Your task to perform on an android device: Search for the most popular coffee table on Crate & Barrel Image 0: 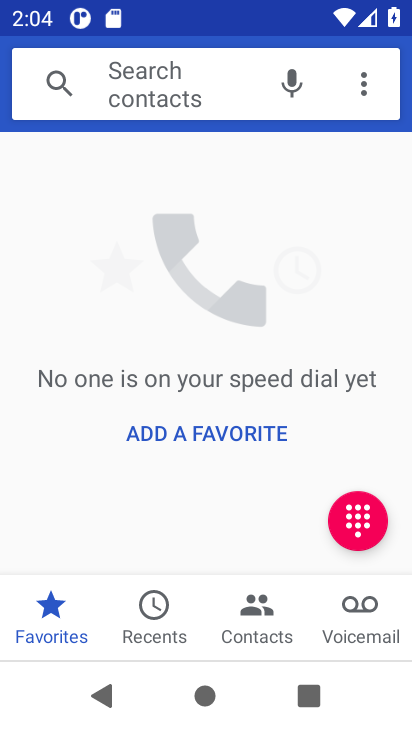
Step 0: press home button
Your task to perform on an android device: Search for the most popular coffee table on Crate & Barrel Image 1: 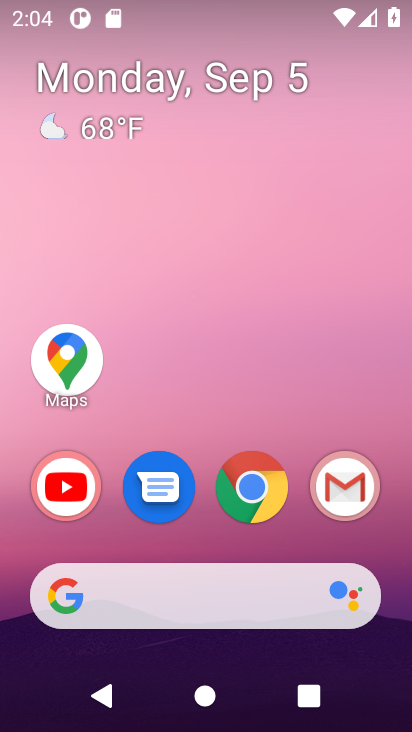
Step 1: click (248, 490)
Your task to perform on an android device: Search for the most popular coffee table on Crate & Barrel Image 2: 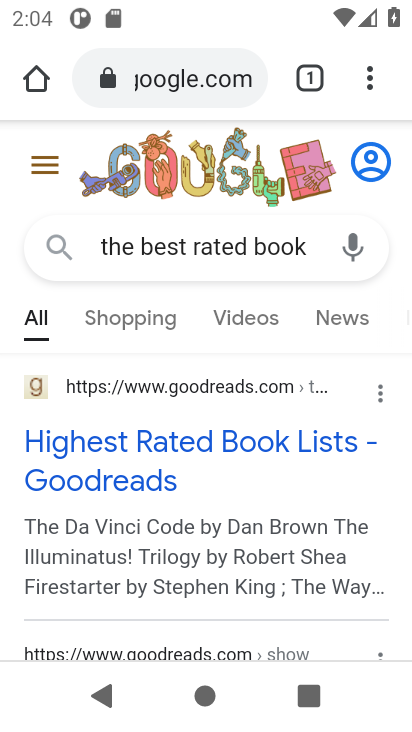
Step 2: click (168, 67)
Your task to perform on an android device: Search for the most popular coffee table on Crate & Barrel Image 3: 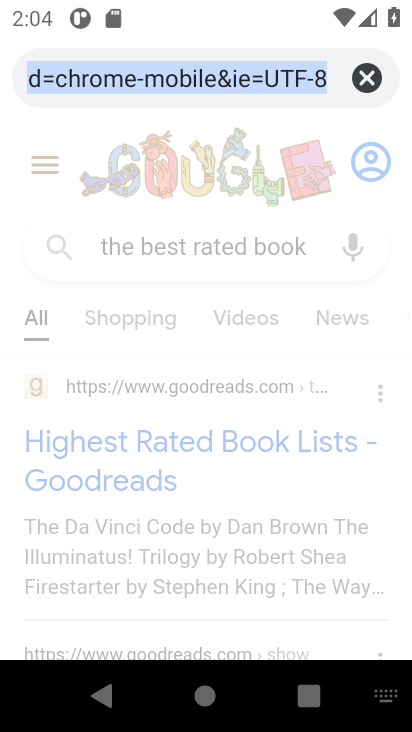
Step 3: click (356, 79)
Your task to perform on an android device: Search for the most popular coffee table on Crate & Barrel Image 4: 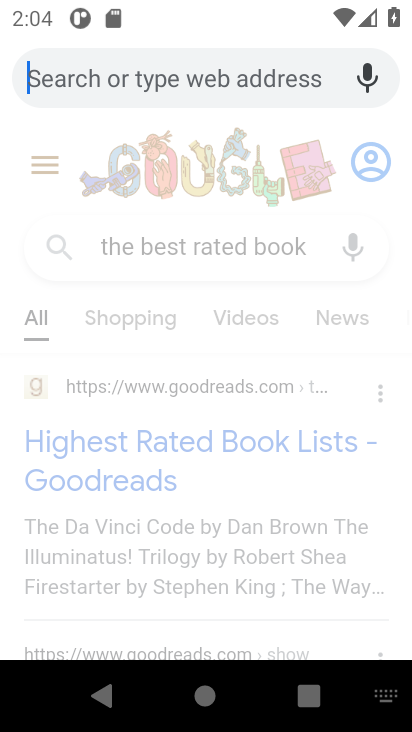
Step 4: type "the most popular coffee table on Crate & Barrel"
Your task to perform on an android device: Search for the most popular coffee table on Crate & Barrel Image 5: 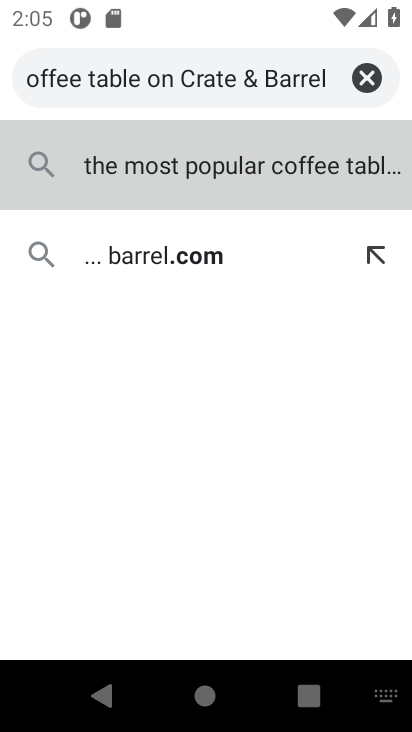
Step 5: click (284, 158)
Your task to perform on an android device: Search for the most popular coffee table on Crate & Barrel Image 6: 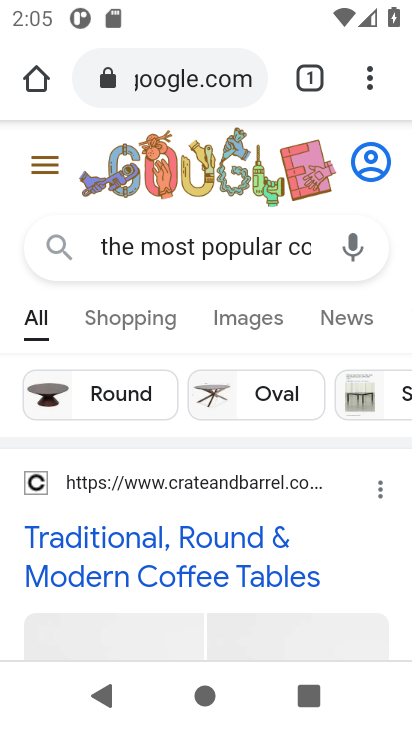
Step 6: task complete